Your task to perform on an android device: read, delete, or share a saved page in the chrome app Image 0: 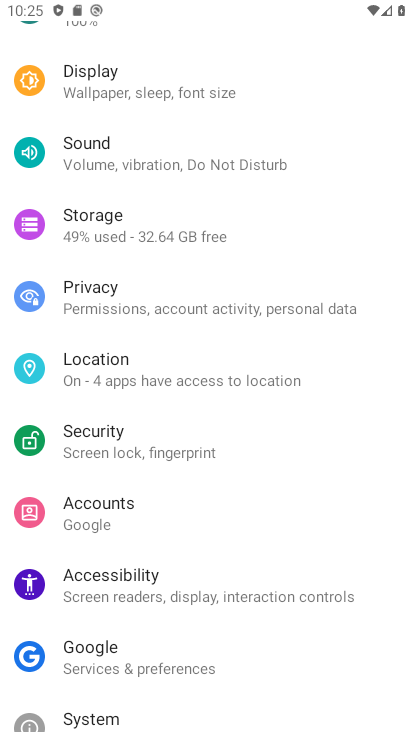
Step 0: press home button
Your task to perform on an android device: read, delete, or share a saved page in the chrome app Image 1: 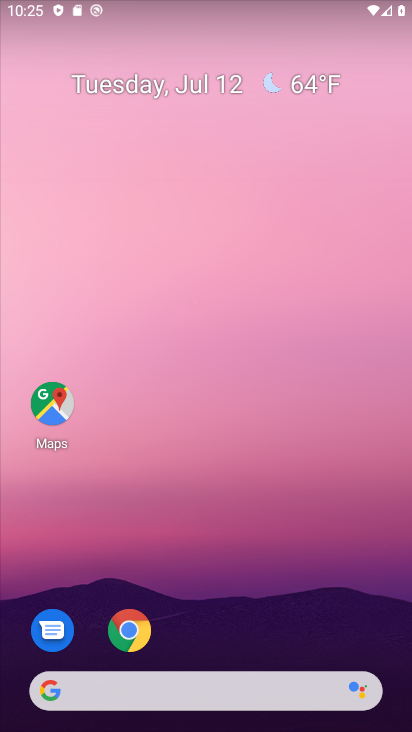
Step 1: drag from (337, 603) to (340, 111)
Your task to perform on an android device: read, delete, or share a saved page in the chrome app Image 2: 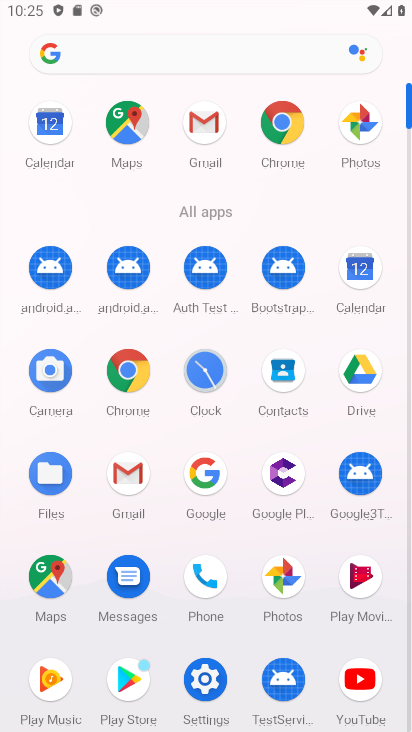
Step 2: click (131, 372)
Your task to perform on an android device: read, delete, or share a saved page in the chrome app Image 3: 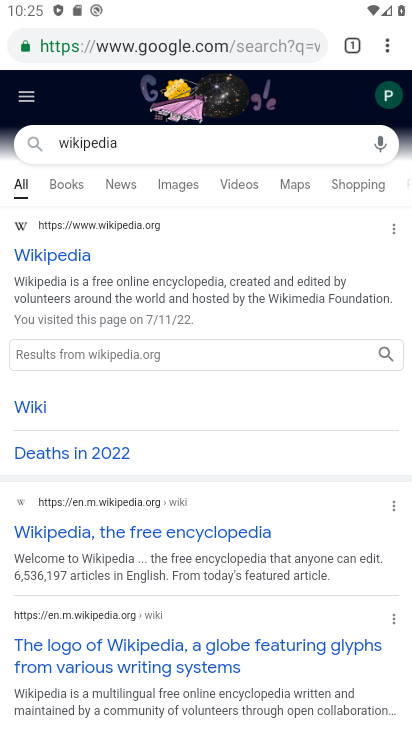
Step 3: click (385, 51)
Your task to perform on an android device: read, delete, or share a saved page in the chrome app Image 4: 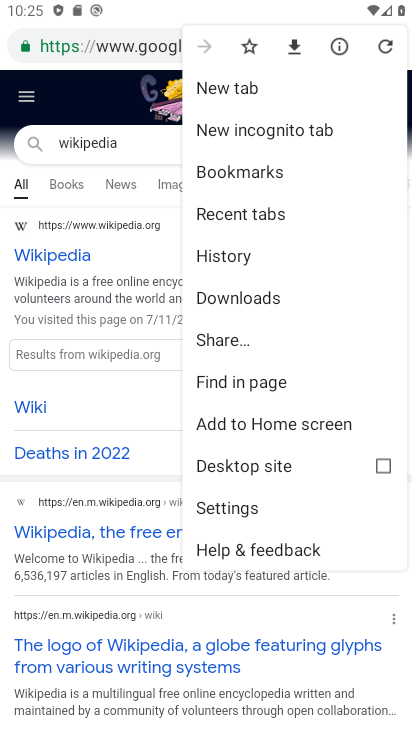
Step 4: click (281, 295)
Your task to perform on an android device: read, delete, or share a saved page in the chrome app Image 5: 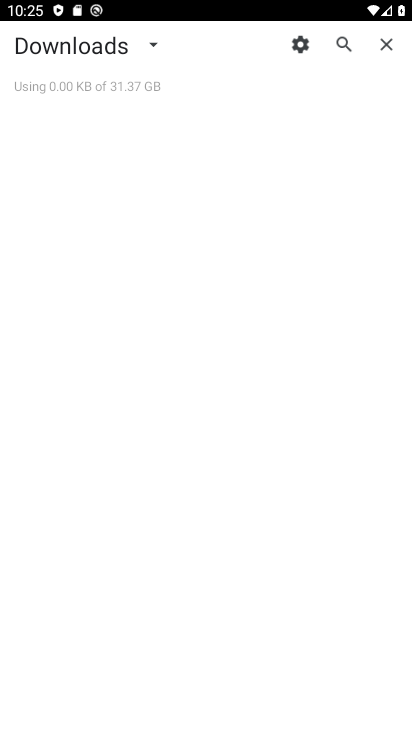
Step 5: click (147, 42)
Your task to perform on an android device: read, delete, or share a saved page in the chrome app Image 6: 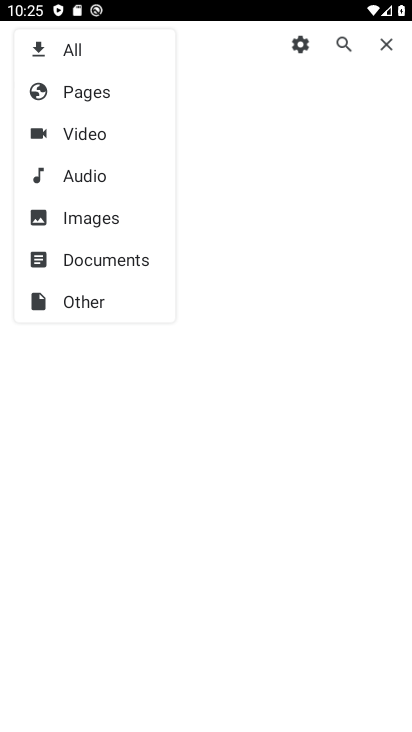
Step 6: click (127, 86)
Your task to perform on an android device: read, delete, or share a saved page in the chrome app Image 7: 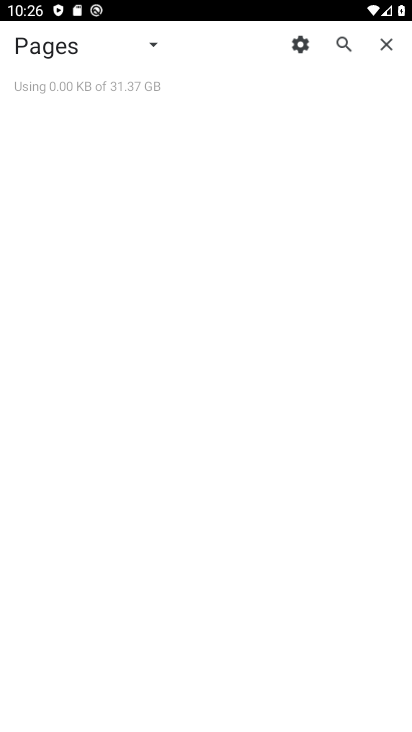
Step 7: task complete